Your task to perform on an android device: toggle sleep mode Image 0: 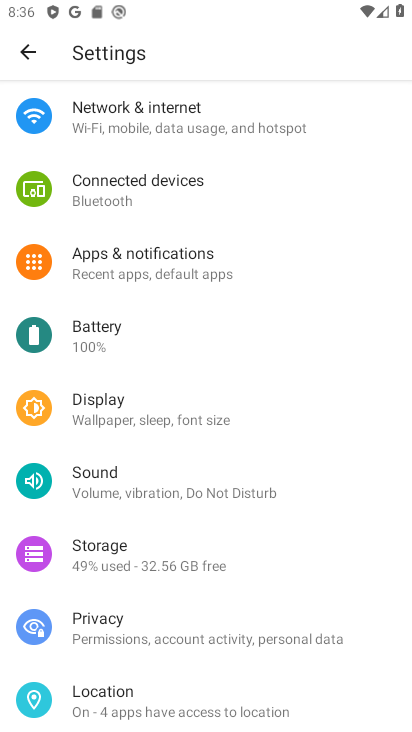
Step 0: press home button
Your task to perform on an android device: toggle sleep mode Image 1: 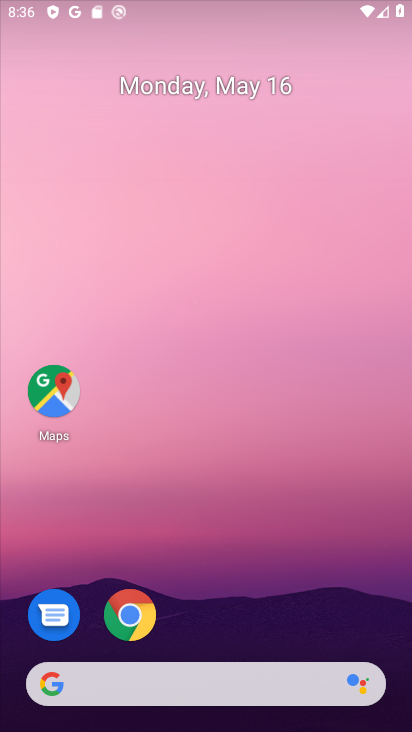
Step 1: drag from (70, 493) to (267, 94)
Your task to perform on an android device: toggle sleep mode Image 2: 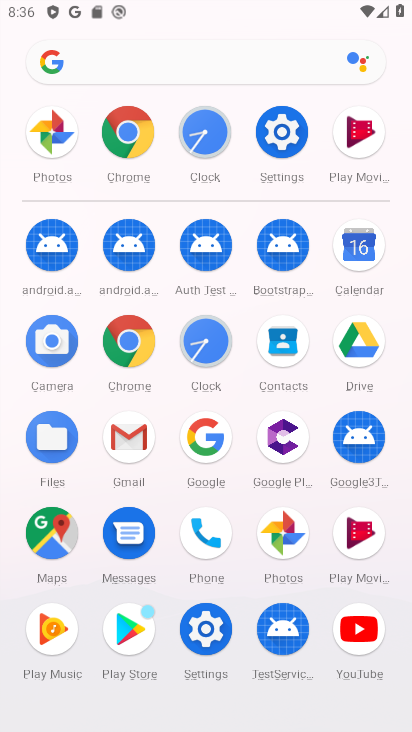
Step 2: click (272, 135)
Your task to perform on an android device: toggle sleep mode Image 3: 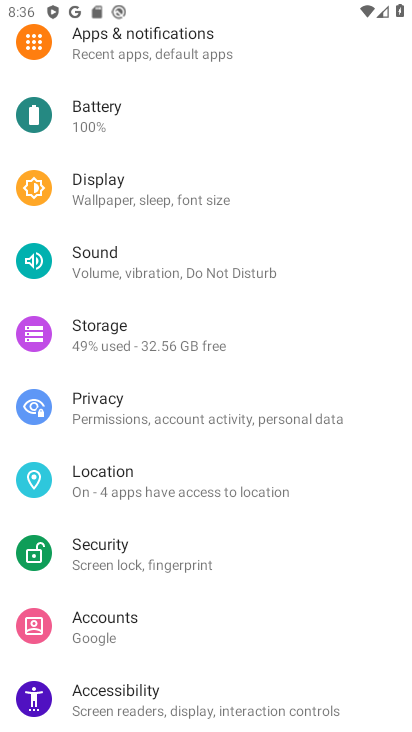
Step 3: click (121, 208)
Your task to perform on an android device: toggle sleep mode Image 4: 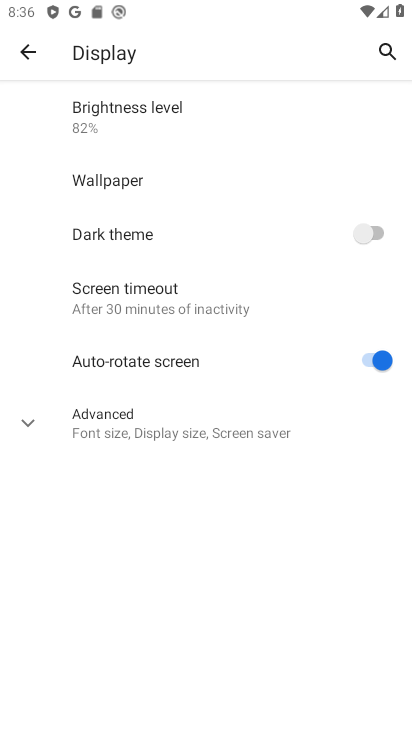
Step 4: task complete